Your task to perform on an android device: turn off location history Image 0: 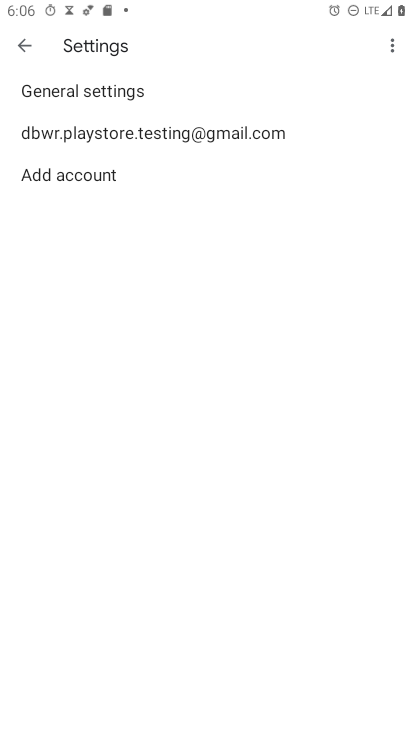
Step 0: press home button
Your task to perform on an android device: turn off location history Image 1: 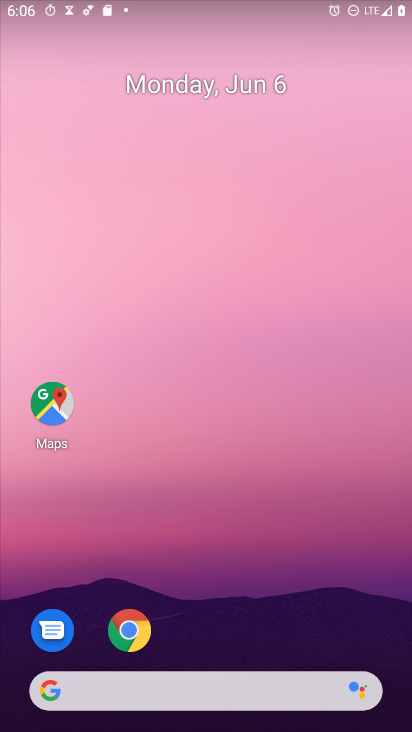
Step 1: drag from (245, 600) to (270, 14)
Your task to perform on an android device: turn off location history Image 2: 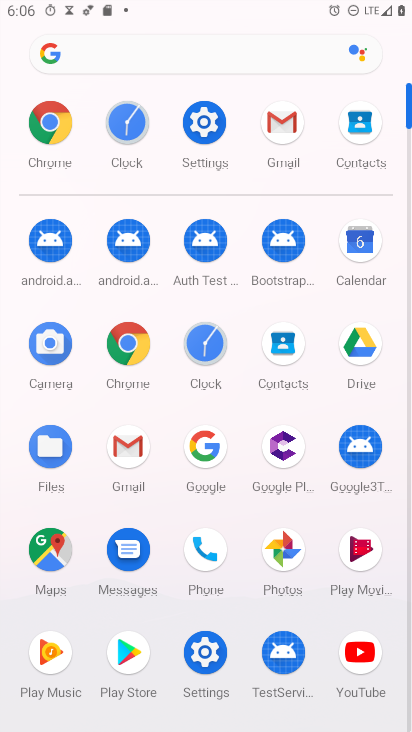
Step 2: click (201, 123)
Your task to perform on an android device: turn off location history Image 3: 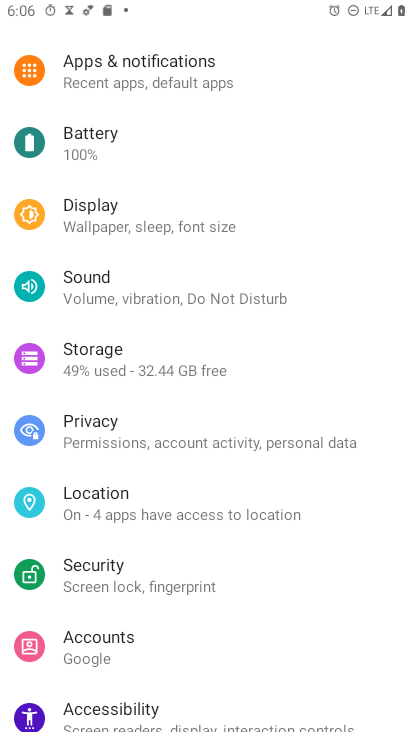
Step 3: click (200, 512)
Your task to perform on an android device: turn off location history Image 4: 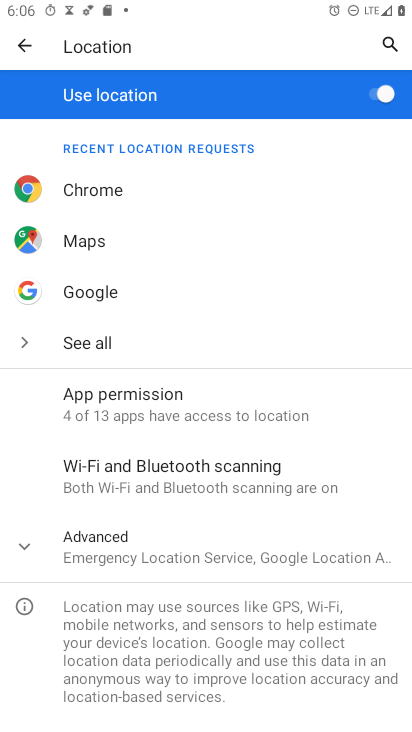
Step 4: click (207, 539)
Your task to perform on an android device: turn off location history Image 5: 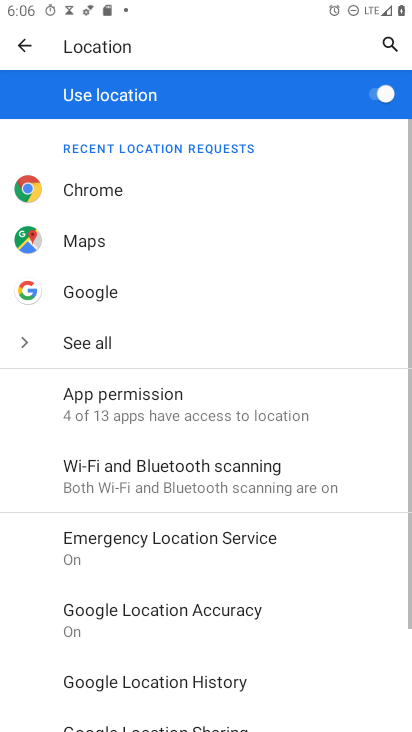
Step 5: drag from (268, 627) to (319, 102)
Your task to perform on an android device: turn off location history Image 6: 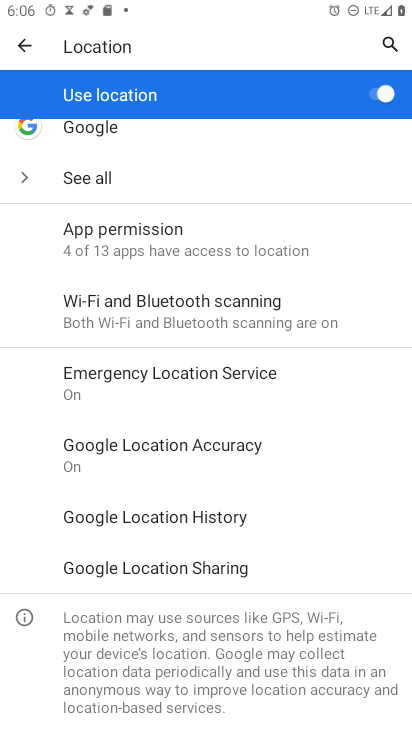
Step 6: click (234, 510)
Your task to perform on an android device: turn off location history Image 7: 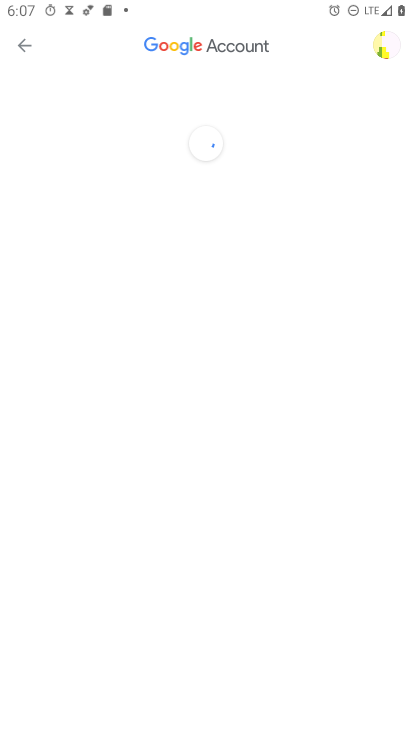
Step 7: drag from (176, 593) to (241, 111)
Your task to perform on an android device: turn off location history Image 8: 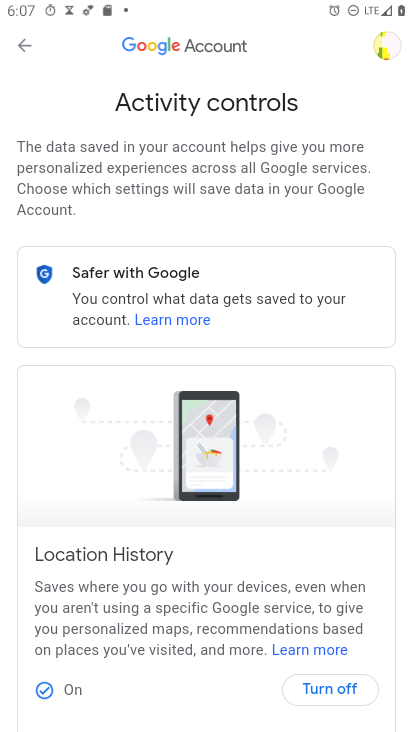
Step 8: drag from (211, 592) to (257, 207)
Your task to perform on an android device: turn off location history Image 9: 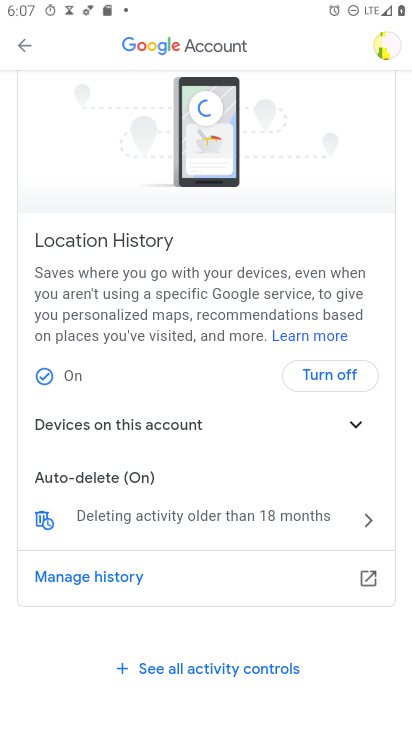
Step 9: click (329, 377)
Your task to perform on an android device: turn off location history Image 10: 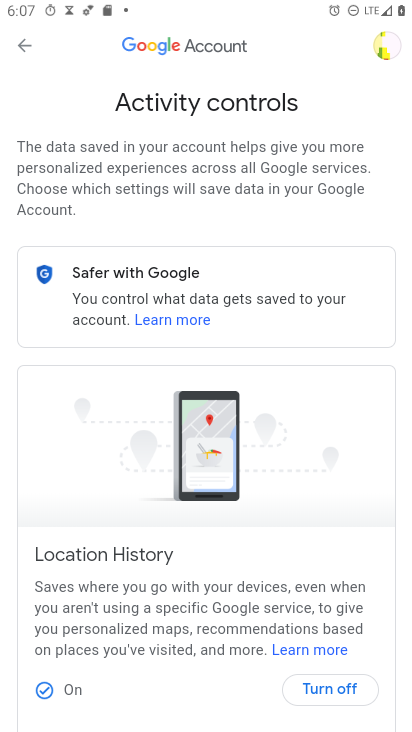
Step 10: drag from (256, 550) to (260, 214)
Your task to perform on an android device: turn off location history Image 11: 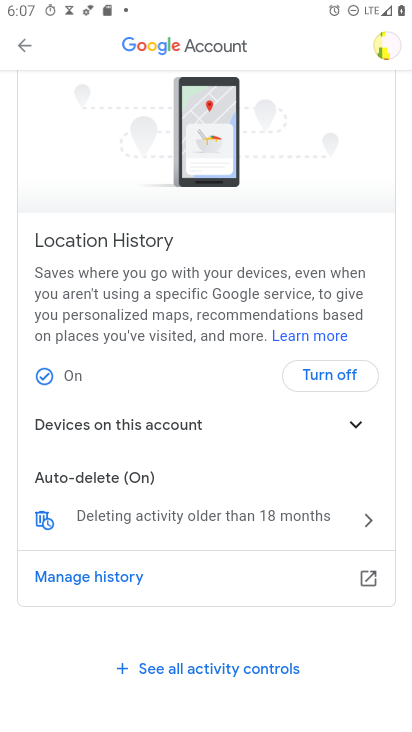
Step 11: click (328, 374)
Your task to perform on an android device: turn off location history Image 12: 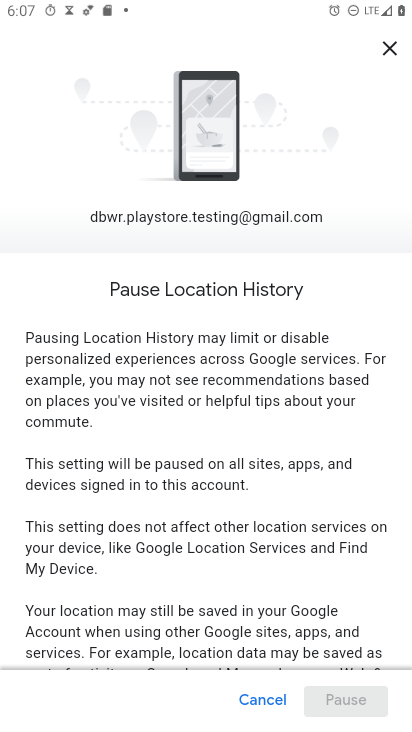
Step 12: drag from (334, 616) to (296, 51)
Your task to perform on an android device: turn off location history Image 13: 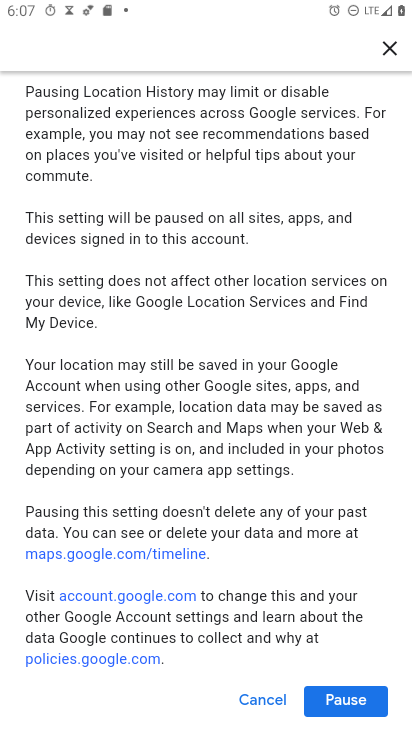
Step 13: click (329, 698)
Your task to perform on an android device: turn off location history Image 14: 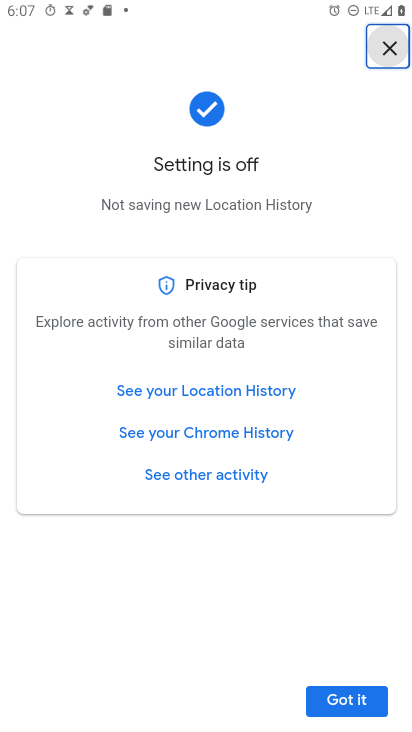
Step 14: click (349, 685)
Your task to perform on an android device: turn off location history Image 15: 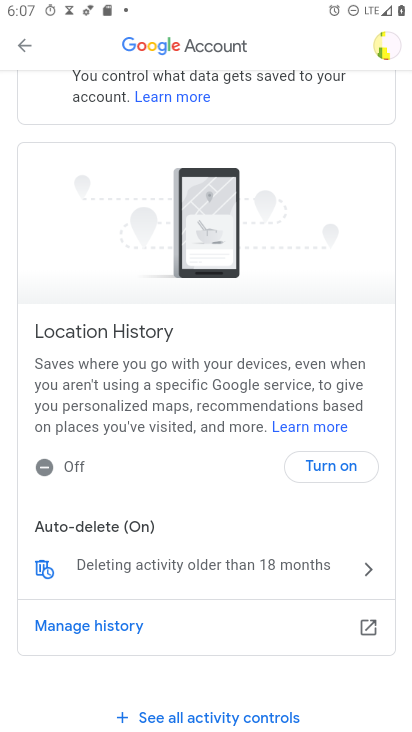
Step 15: task complete